Your task to perform on an android device: manage bookmarks in the chrome app Image 0: 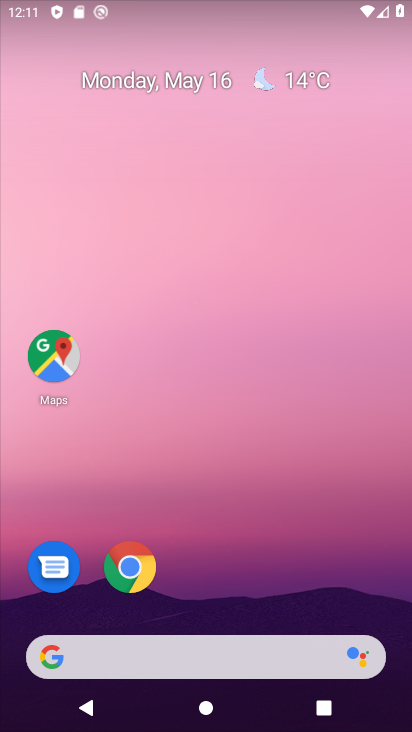
Step 0: click (140, 577)
Your task to perform on an android device: manage bookmarks in the chrome app Image 1: 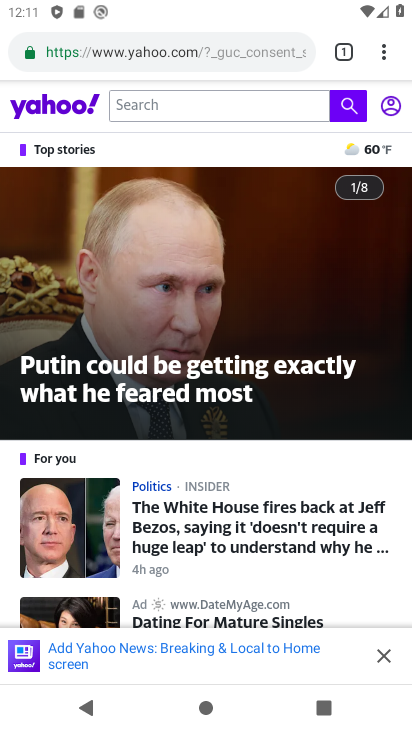
Step 1: click (385, 47)
Your task to perform on an android device: manage bookmarks in the chrome app Image 2: 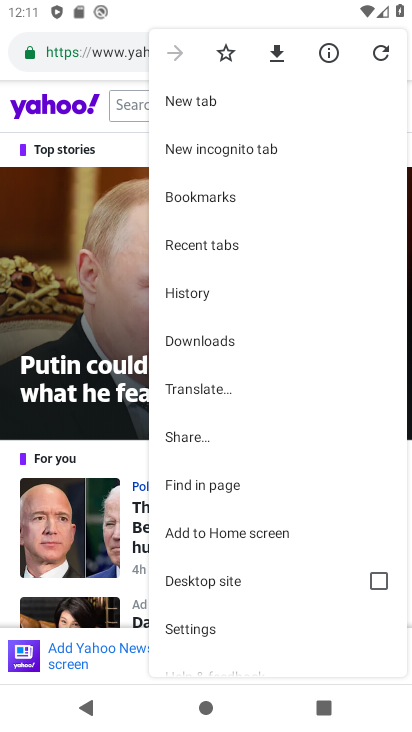
Step 2: click (211, 196)
Your task to perform on an android device: manage bookmarks in the chrome app Image 3: 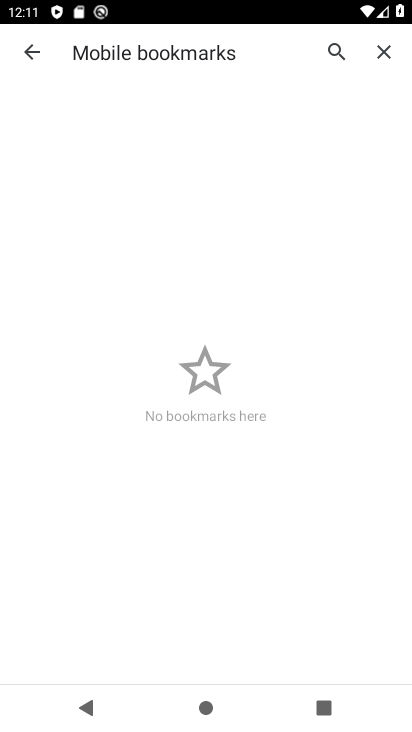
Step 3: task complete